Your task to perform on an android device: Open the calendar and show me this week's events Image 0: 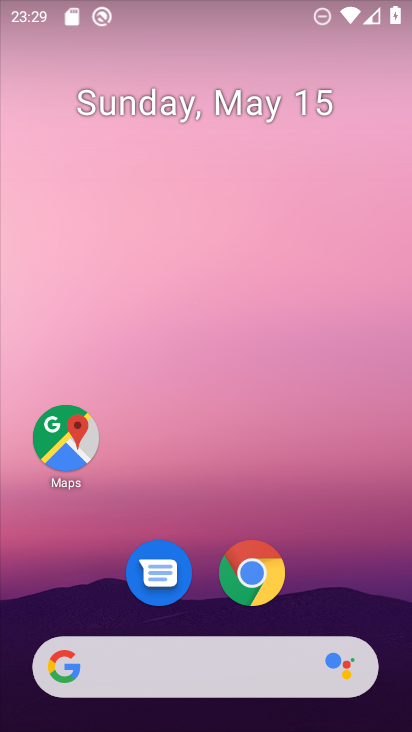
Step 0: drag from (330, 558) to (332, 0)
Your task to perform on an android device: Open the calendar and show me this week's events Image 1: 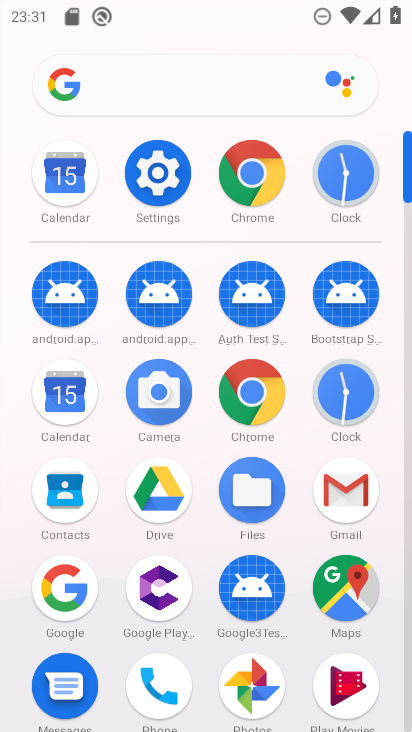
Step 1: click (32, 397)
Your task to perform on an android device: Open the calendar and show me this week's events Image 2: 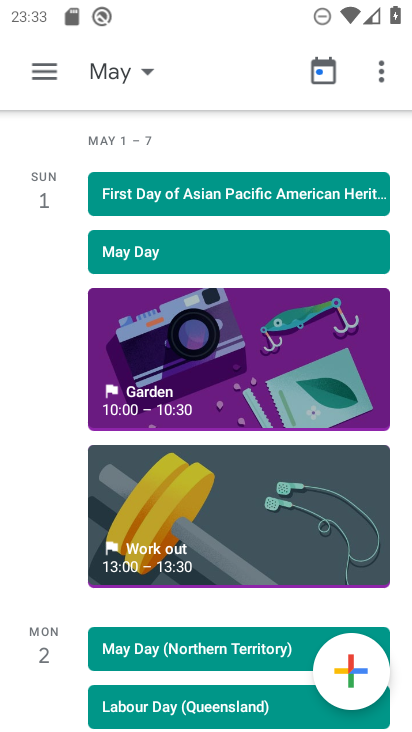
Step 2: click (133, 77)
Your task to perform on an android device: Open the calendar and show me this week's events Image 3: 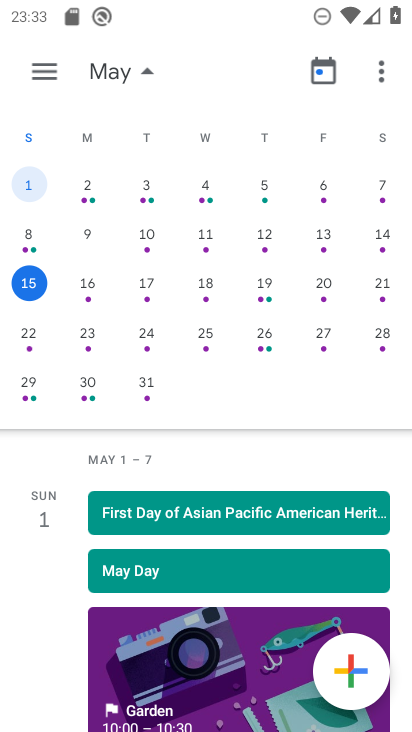
Step 3: click (141, 289)
Your task to perform on an android device: Open the calendar and show me this week's events Image 4: 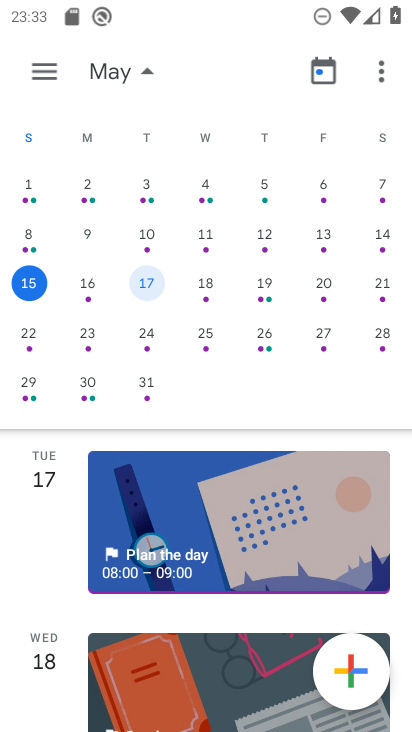
Step 4: click (262, 292)
Your task to perform on an android device: Open the calendar and show me this week's events Image 5: 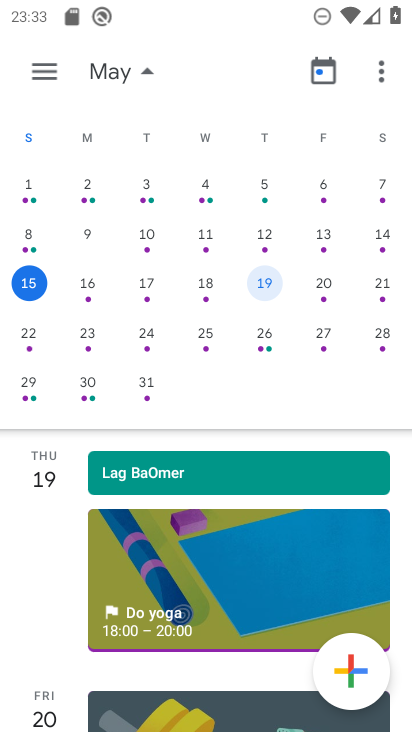
Step 5: click (135, 70)
Your task to perform on an android device: Open the calendar and show me this week's events Image 6: 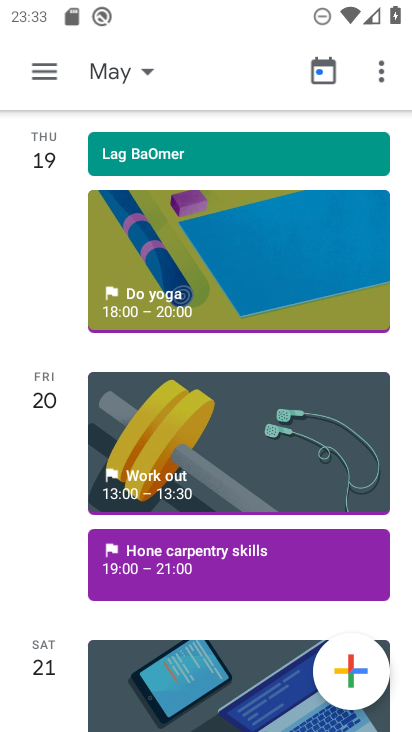
Step 6: task complete